Your task to perform on an android device: Open battery settings Image 0: 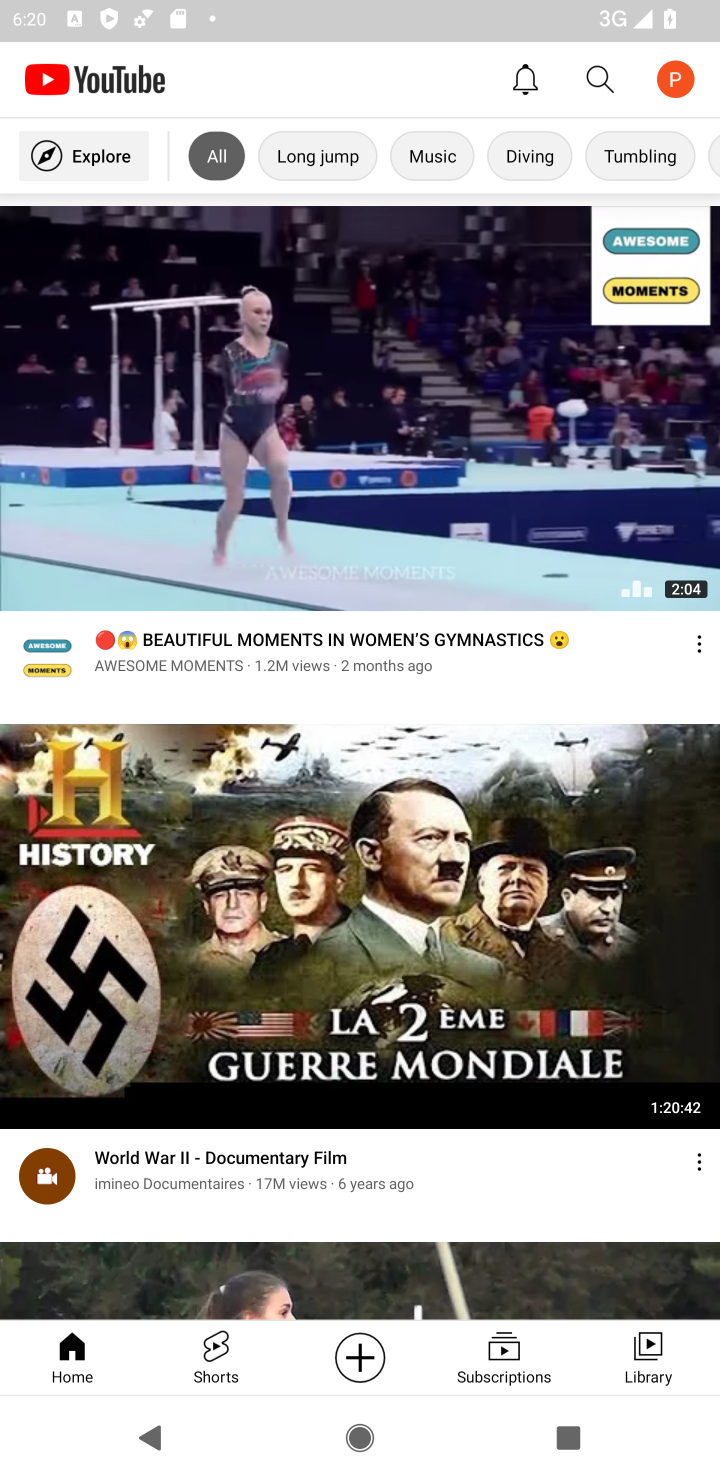
Step 0: press home button
Your task to perform on an android device: Open battery settings Image 1: 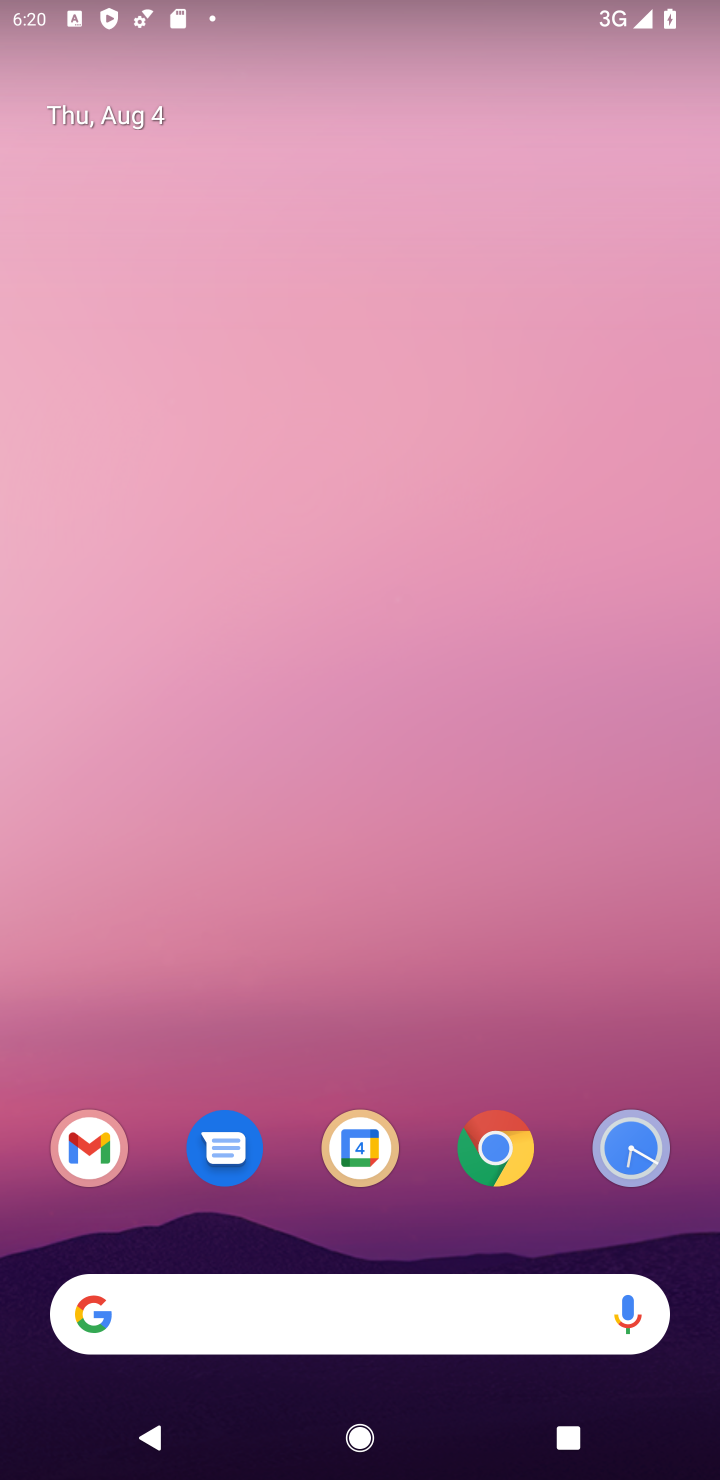
Step 1: drag from (555, 1222) to (524, 315)
Your task to perform on an android device: Open battery settings Image 2: 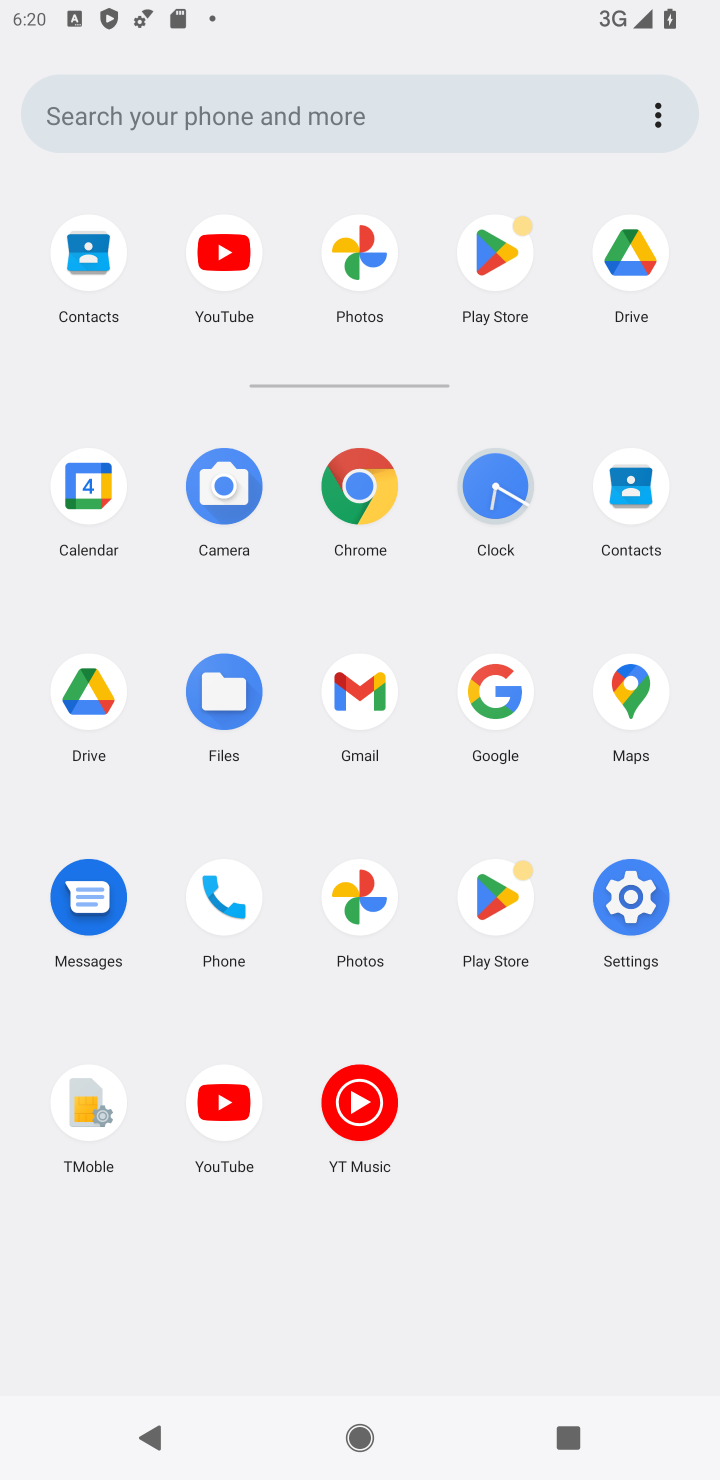
Step 2: click (630, 899)
Your task to perform on an android device: Open battery settings Image 3: 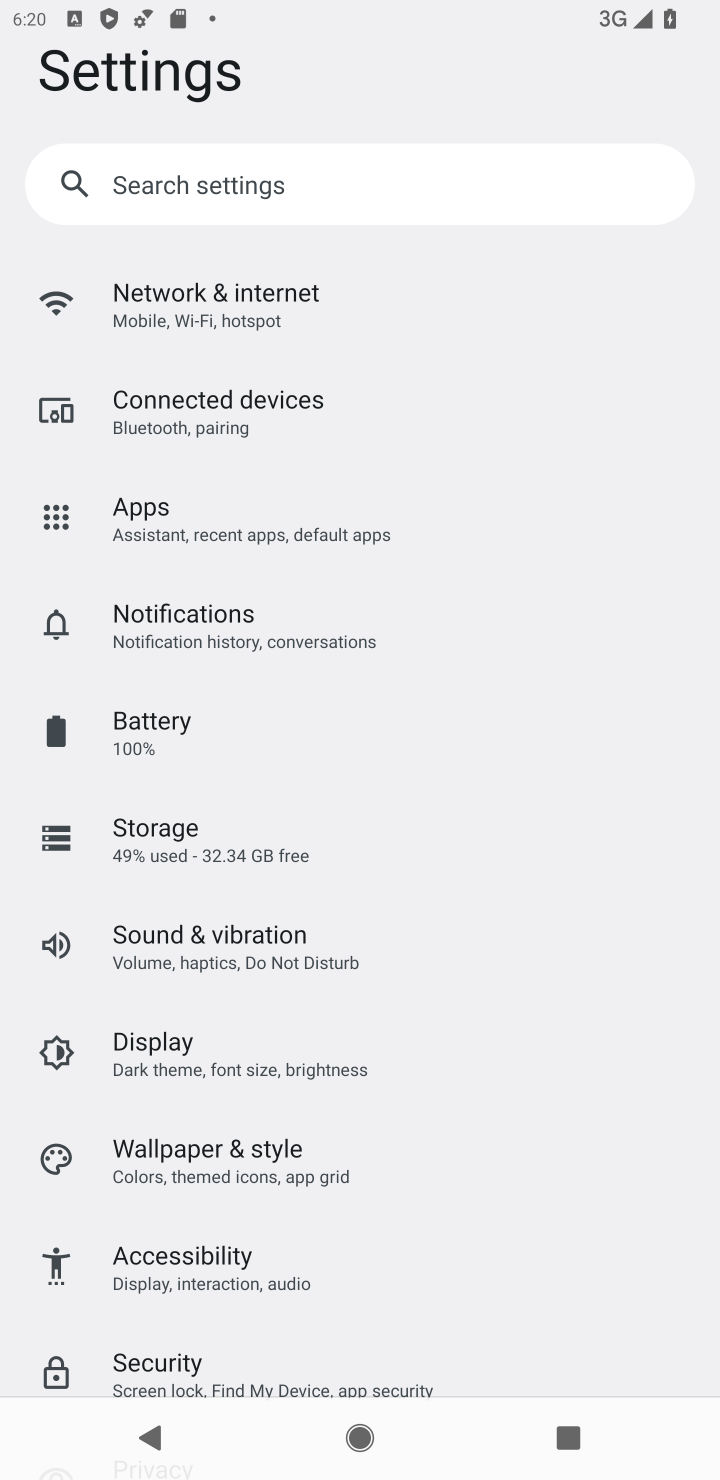
Step 3: click (158, 733)
Your task to perform on an android device: Open battery settings Image 4: 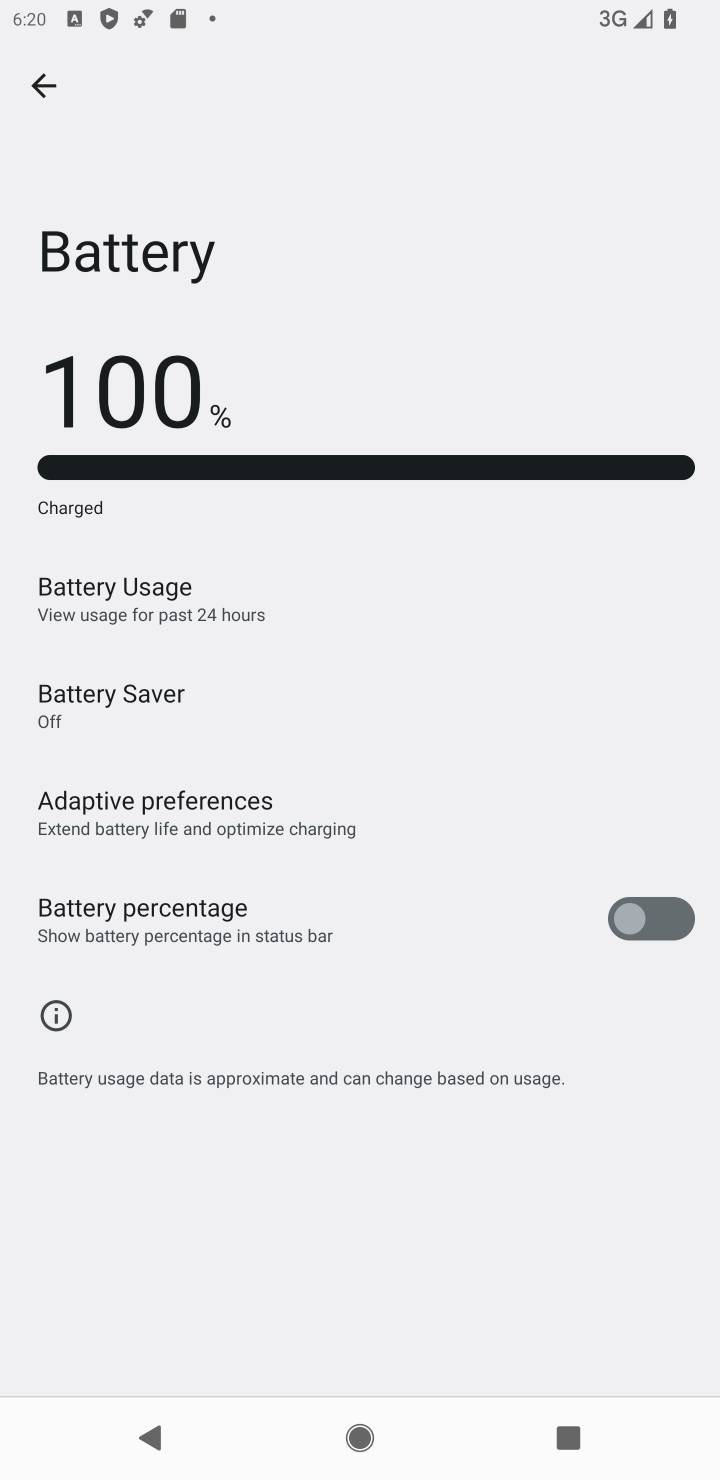
Step 4: task complete